Your task to perform on an android device: set the timer Image 0: 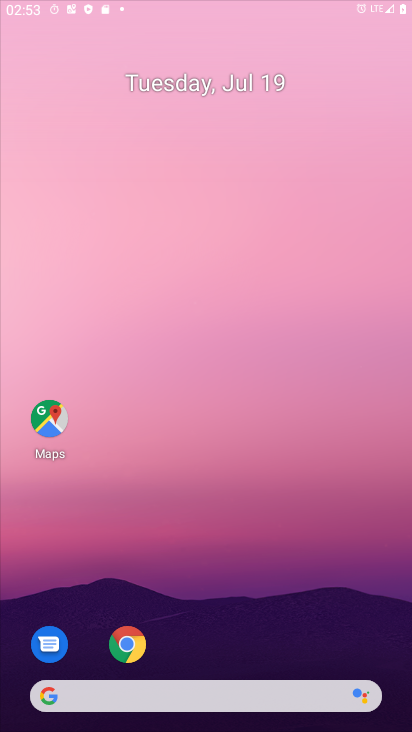
Step 0: press home button
Your task to perform on an android device: set the timer Image 1: 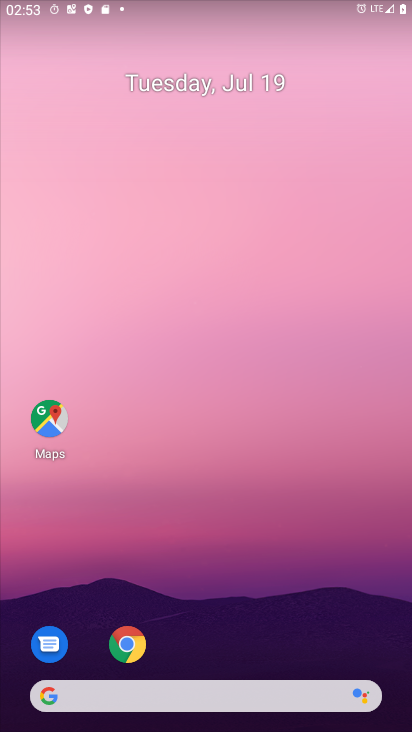
Step 1: drag from (210, 662) to (210, 280)
Your task to perform on an android device: set the timer Image 2: 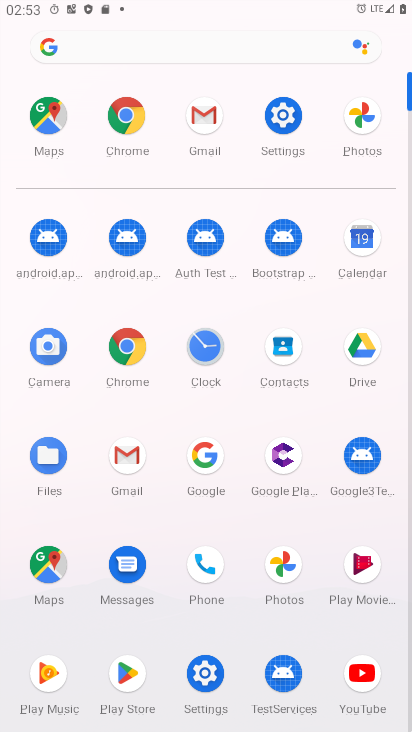
Step 2: click (207, 347)
Your task to perform on an android device: set the timer Image 3: 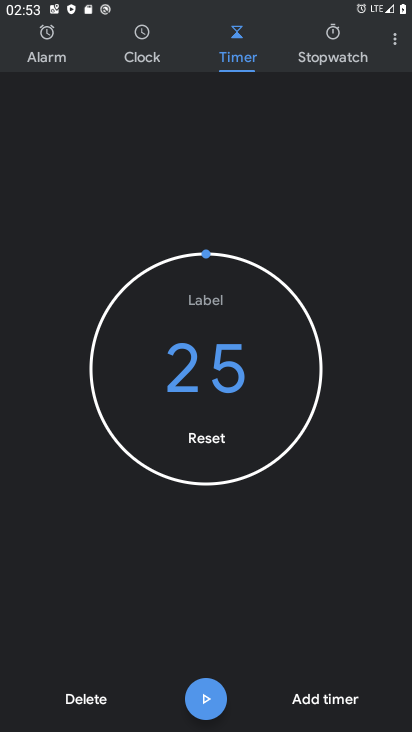
Step 3: click (297, 701)
Your task to perform on an android device: set the timer Image 4: 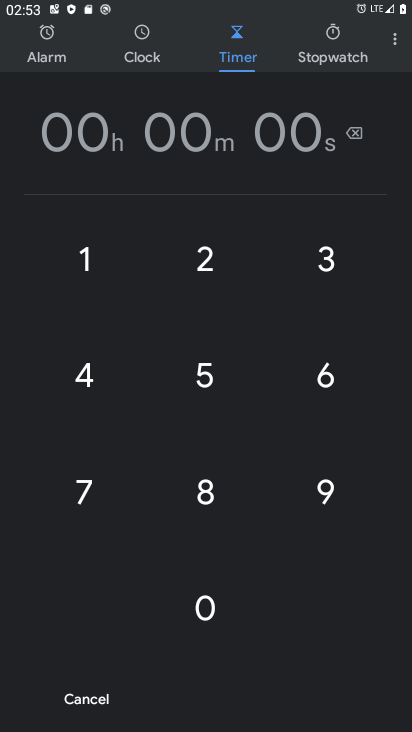
Step 4: click (205, 363)
Your task to perform on an android device: set the timer Image 5: 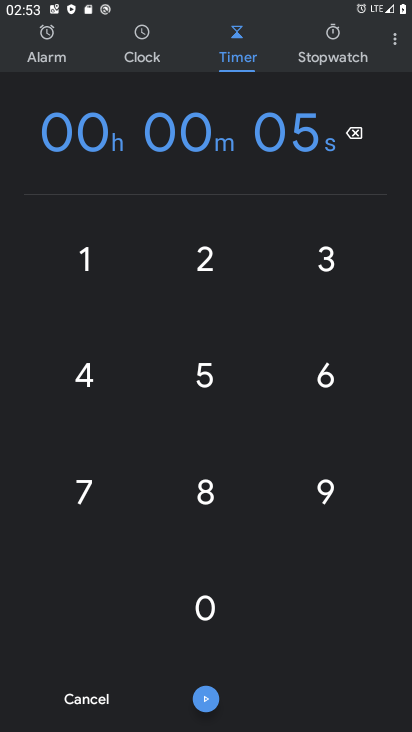
Step 5: click (81, 281)
Your task to perform on an android device: set the timer Image 6: 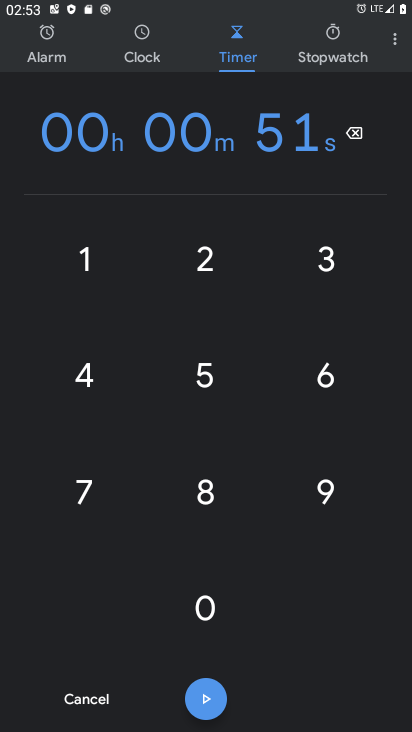
Step 6: click (208, 613)
Your task to perform on an android device: set the timer Image 7: 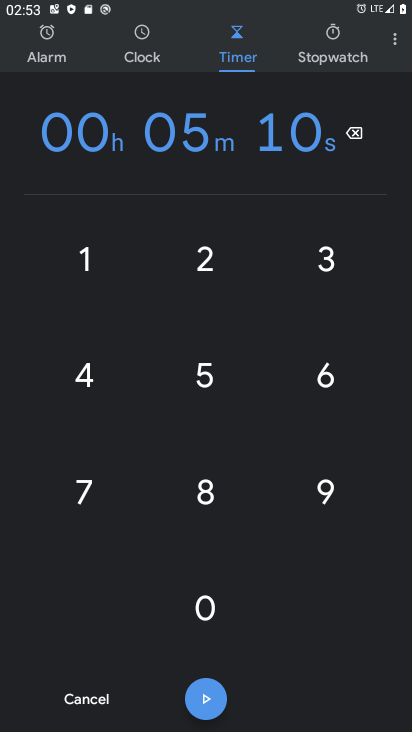
Step 7: click (204, 695)
Your task to perform on an android device: set the timer Image 8: 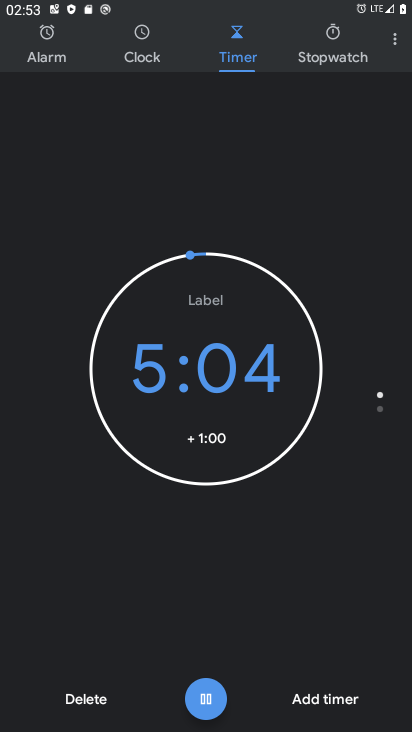
Step 8: task complete